Your task to perform on an android device: remove spam from my inbox in the gmail app Image 0: 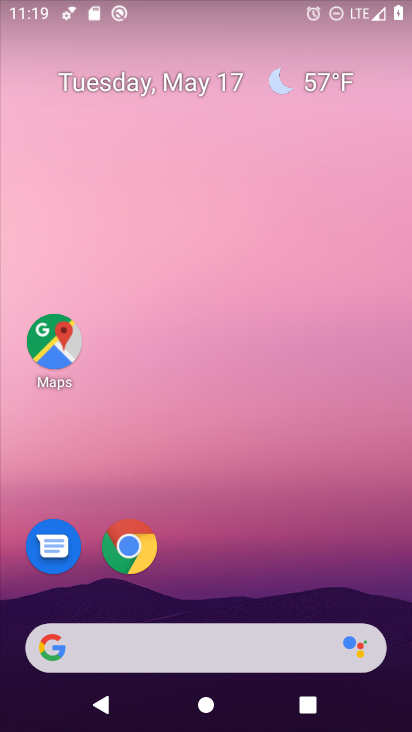
Step 0: drag from (269, 562) to (328, 0)
Your task to perform on an android device: remove spam from my inbox in the gmail app Image 1: 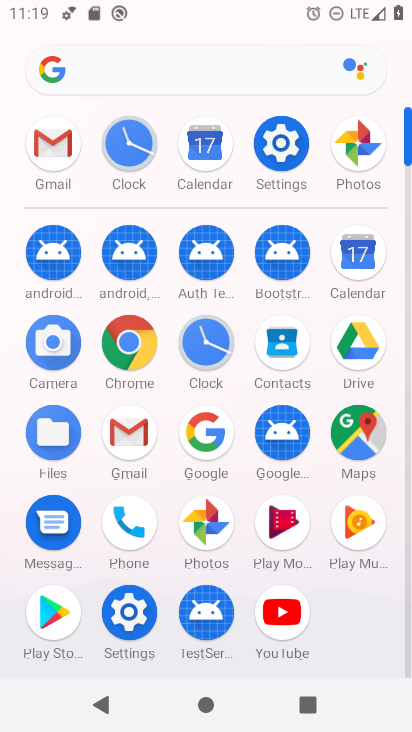
Step 1: click (40, 159)
Your task to perform on an android device: remove spam from my inbox in the gmail app Image 2: 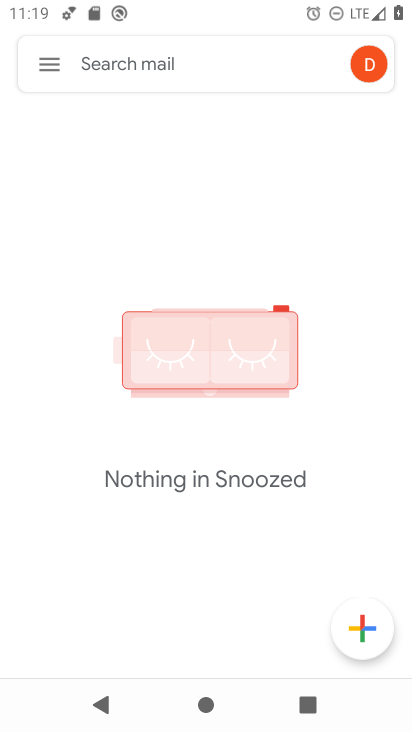
Step 2: click (38, 67)
Your task to perform on an android device: remove spam from my inbox in the gmail app Image 3: 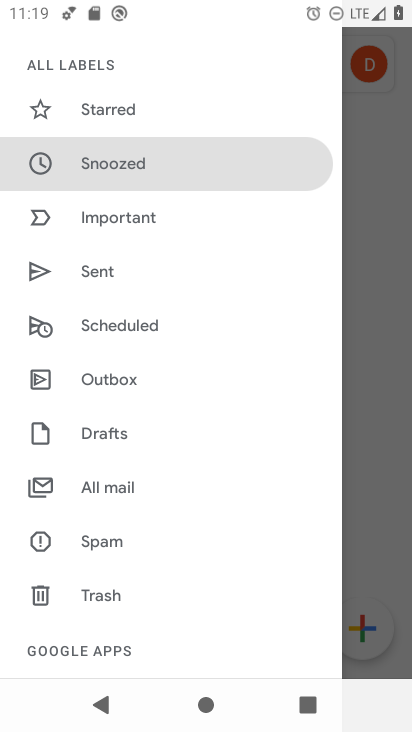
Step 3: click (94, 533)
Your task to perform on an android device: remove spam from my inbox in the gmail app Image 4: 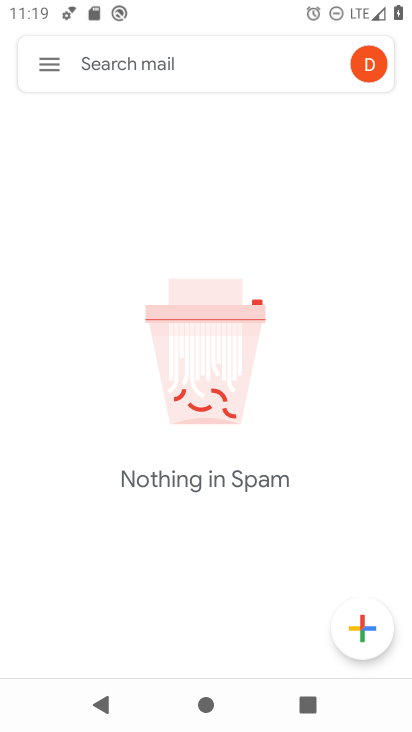
Step 4: task complete